Your task to perform on an android device: Open location settings Image 0: 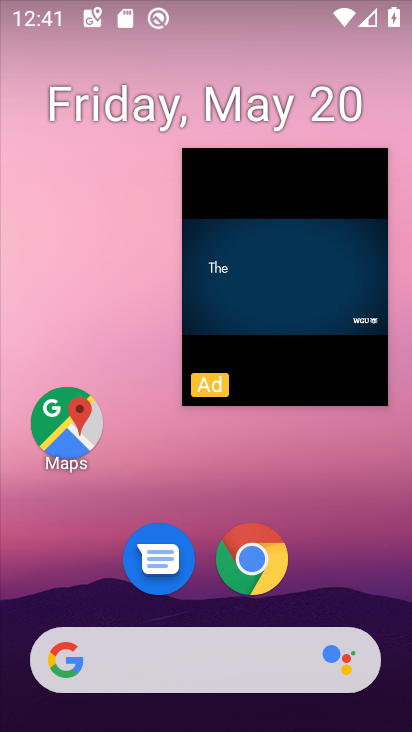
Step 0: drag from (314, 265) to (205, 704)
Your task to perform on an android device: Open location settings Image 1: 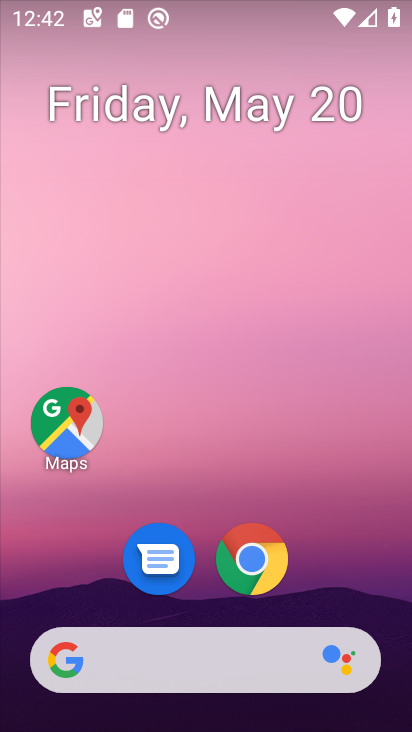
Step 1: drag from (353, 511) to (296, 193)
Your task to perform on an android device: Open location settings Image 2: 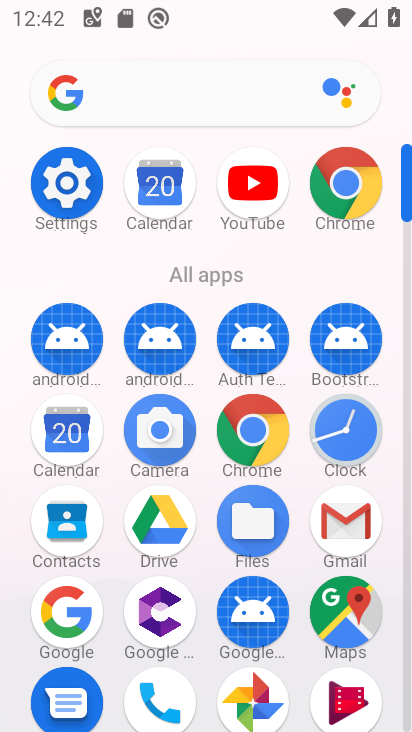
Step 2: click (67, 176)
Your task to perform on an android device: Open location settings Image 3: 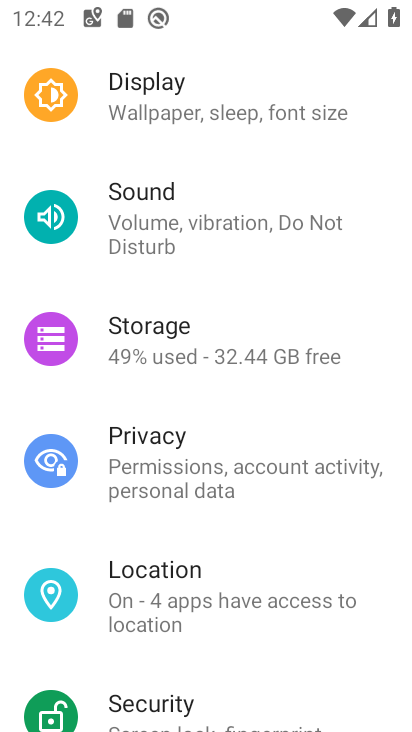
Step 3: click (219, 564)
Your task to perform on an android device: Open location settings Image 4: 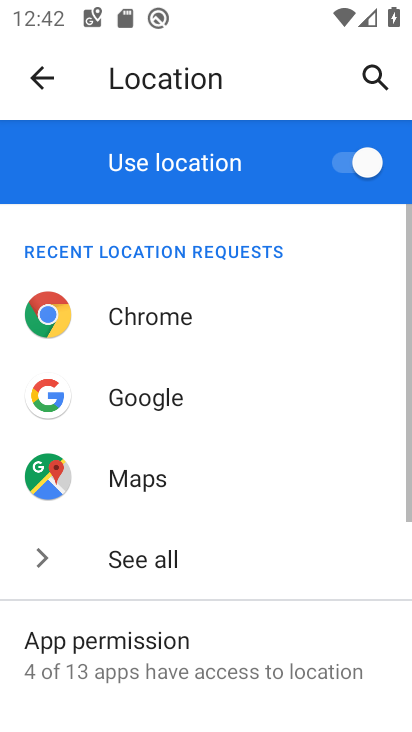
Step 4: task complete